Your task to perform on an android device: Open Chrome and go to the settings page Image 0: 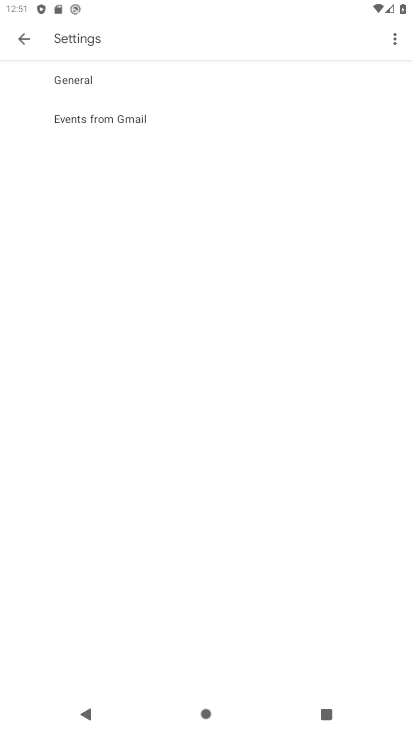
Step 0: press home button
Your task to perform on an android device: Open Chrome and go to the settings page Image 1: 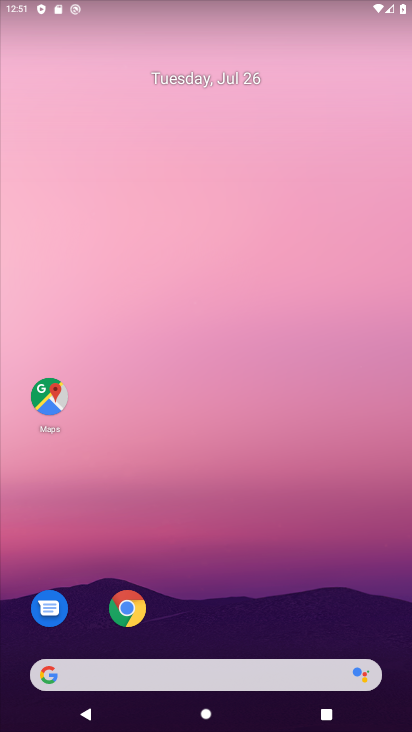
Step 1: drag from (287, 610) to (227, 174)
Your task to perform on an android device: Open Chrome and go to the settings page Image 2: 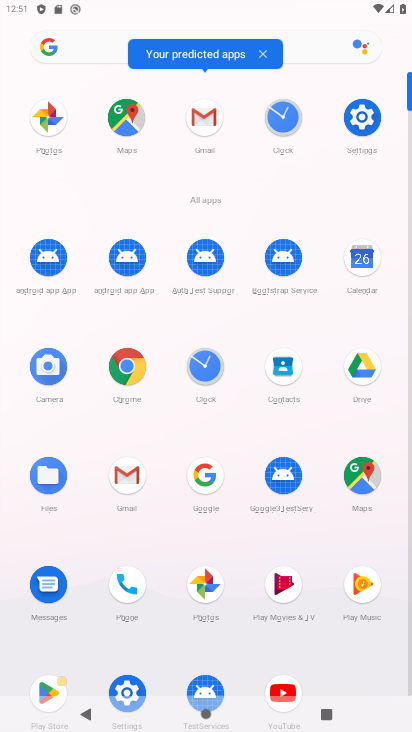
Step 2: click (123, 371)
Your task to perform on an android device: Open Chrome and go to the settings page Image 3: 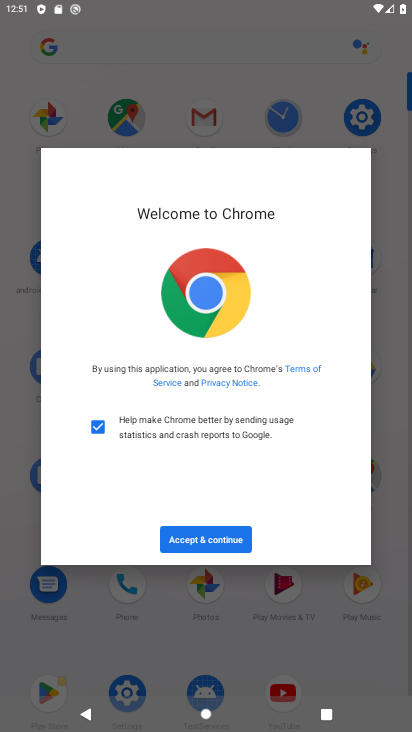
Step 3: click (241, 536)
Your task to perform on an android device: Open Chrome and go to the settings page Image 4: 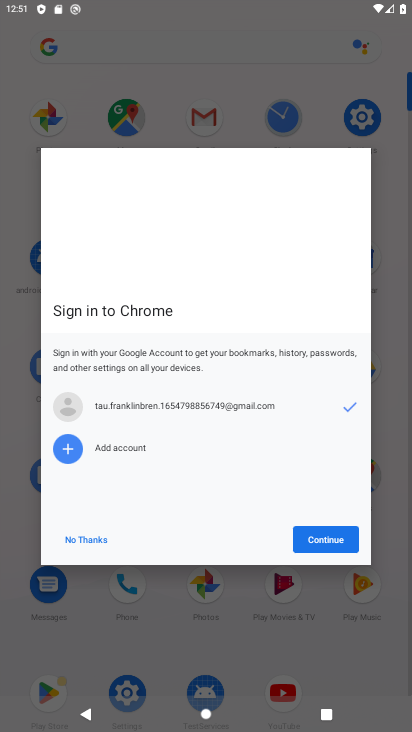
Step 4: click (317, 537)
Your task to perform on an android device: Open Chrome and go to the settings page Image 5: 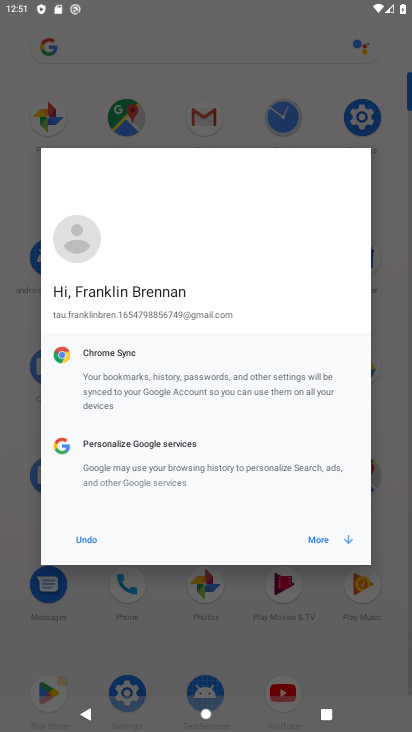
Step 5: click (337, 540)
Your task to perform on an android device: Open Chrome and go to the settings page Image 6: 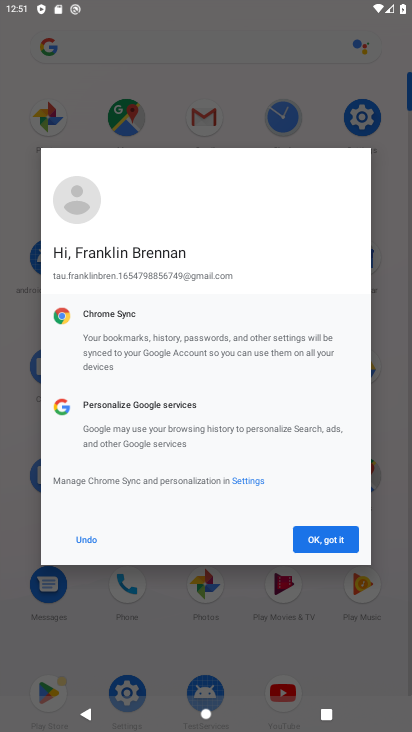
Step 6: click (337, 540)
Your task to perform on an android device: Open Chrome and go to the settings page Image 7: 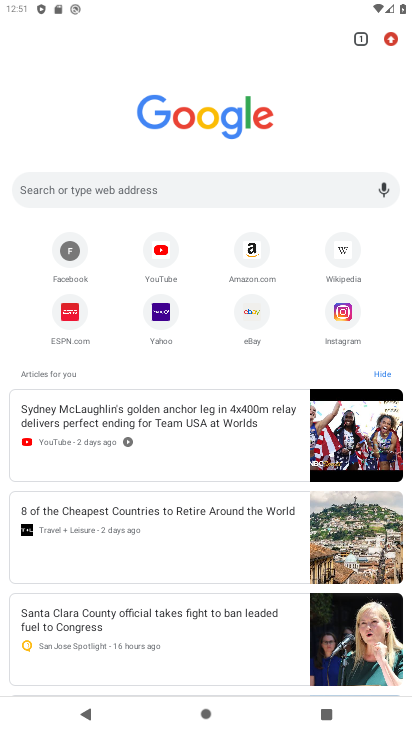
Step 7: click (395, 38)
Your task to perform on an android device: Open Chrome and go to the settings page Image 8: 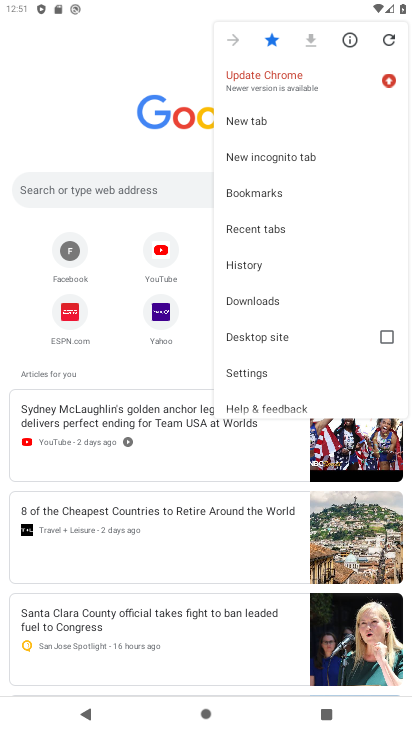
Step 8: click (275, 373)
Your task to perform on an android device: Open Chrome and go to the settings page Image 9: 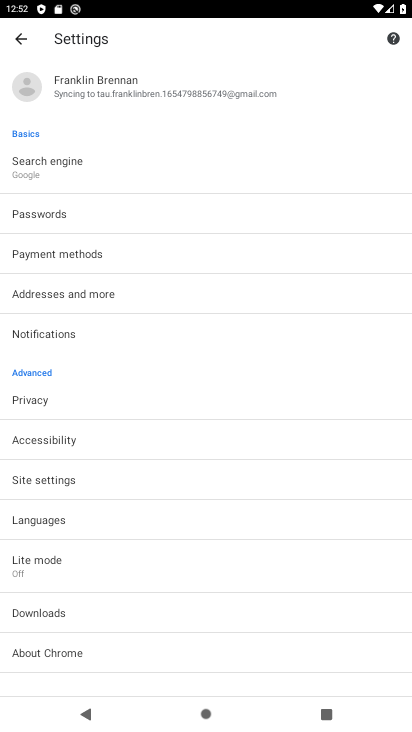
Step 9: task complete